Your task to perform on an android device: visit the assistant section in the google photos Image 0: 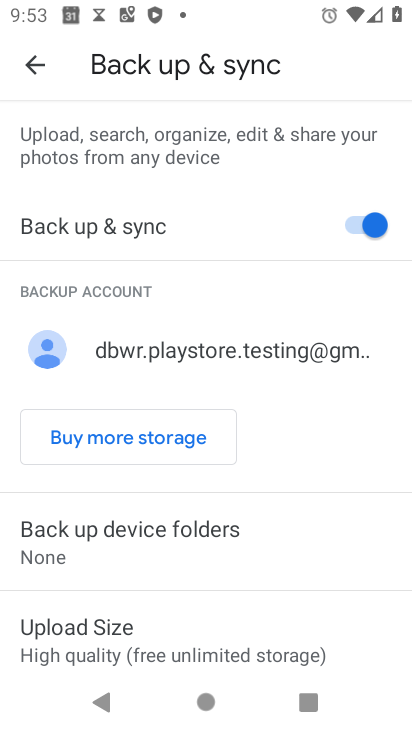
Step 0: press home button
Your task to perform on an android device: visit the assistant section in the google photos Image 1: 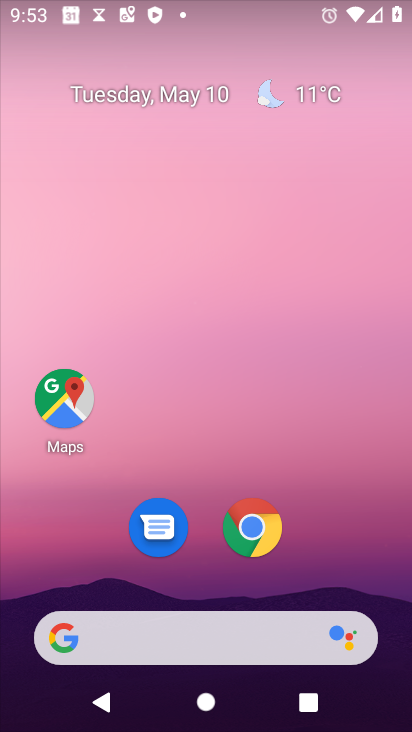
Step 1: drag from (339, 546) to (282, 3)
Your task to perform on an android device: visit the assistant section in the google photos Image 2: 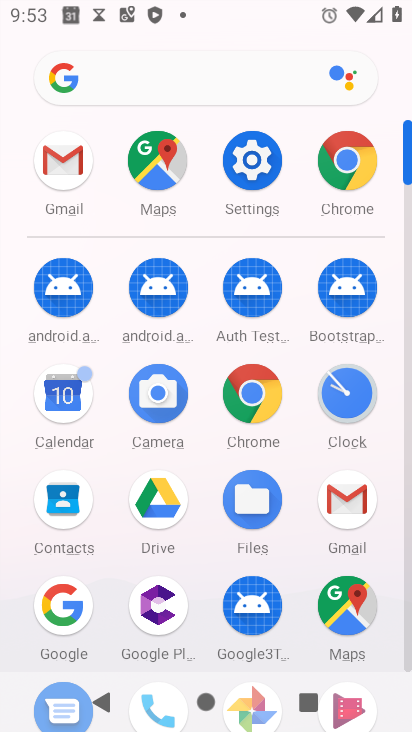
Step 2: drag from (294, 476) to (282, 254)
Your task to perform on an android device: visit the assistant section in the google photos Image 3: 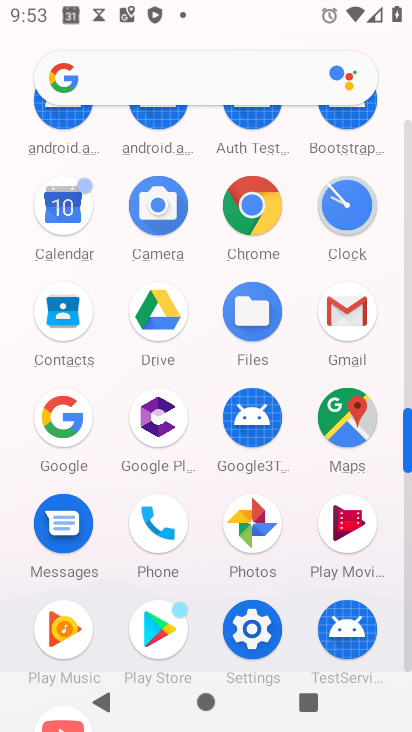
Step 3: click (256, 525)
Your task to perform on an android device: visit the assistant section in the google photos Image 4: 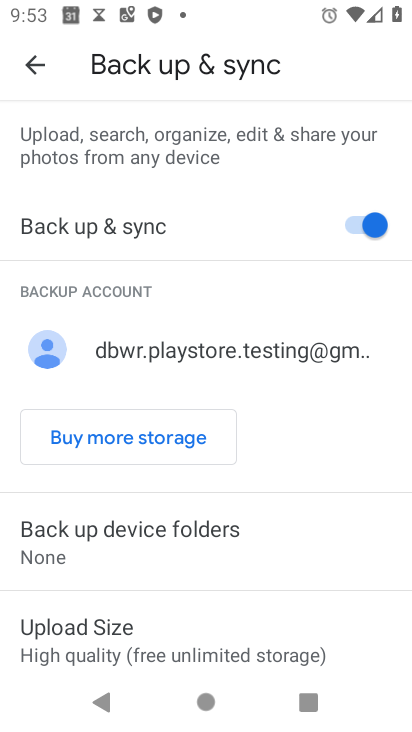
Step 4: click (30, 60)
Your task to perform on an android device: visit the assistant section in the google photos Image 5: 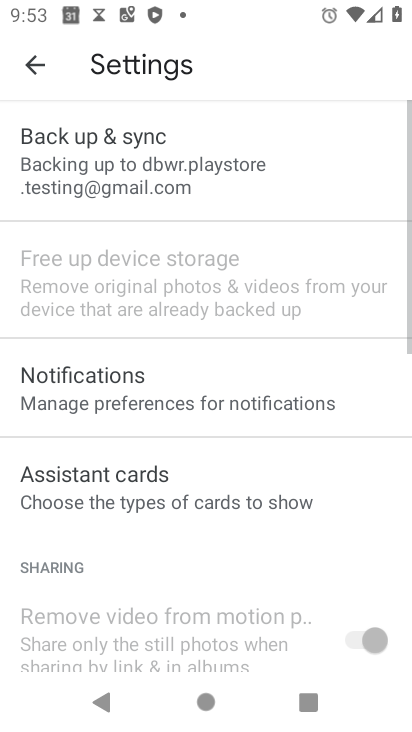
Step 5: click (30, 60)
Your task to perform on an android device: visit the assistant section in the google photos Image 6: 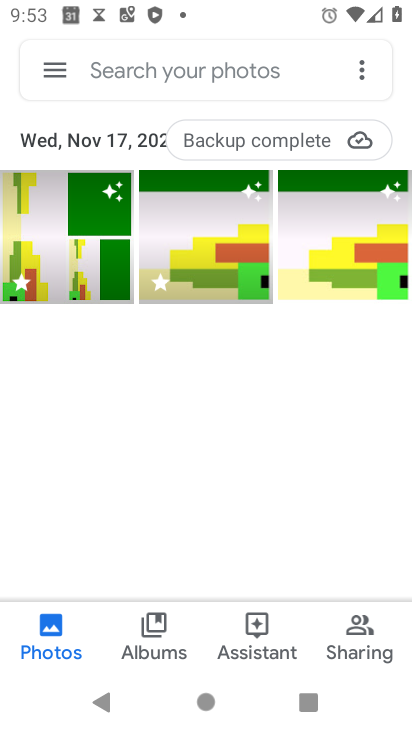
Step 6: click (255, 637)
Your task to perform on an android device: visit the assistant section in the google photos Image 7: 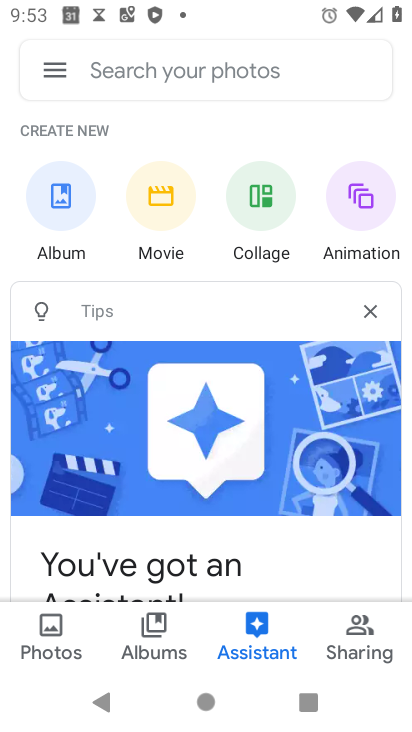
Step 7: task complete